Your task to perform on an android device: Do I have any events this weekend? Image 0: 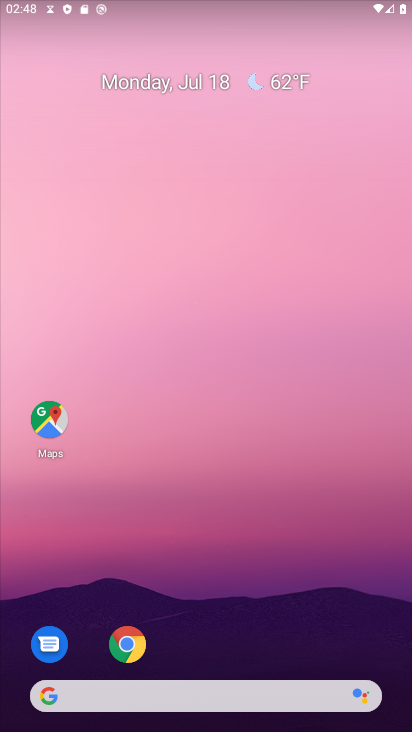
Step 0: drag from (195, 570) to (143, 281)
Your task to perform on an android device: Do I have any events this weekend? Image 1: 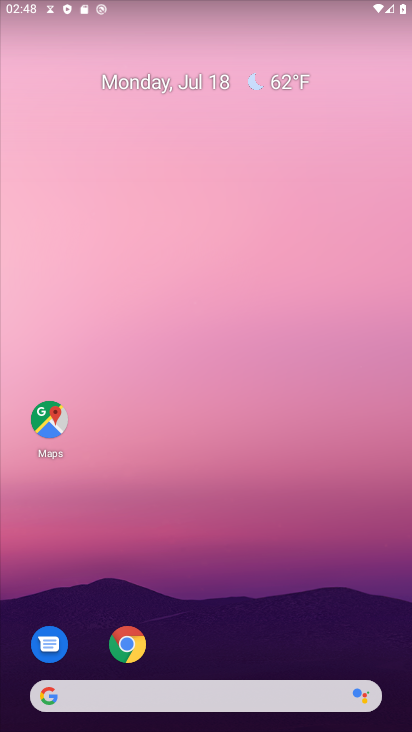
Step 1: drag from (194, 640) to (126, 346)
Your task to perform on an android device: Do I have any events this weekend? Image 2: 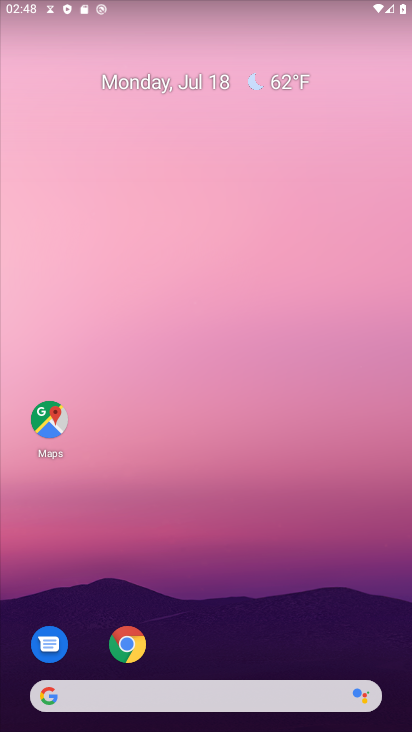
Step 2: drag from (210, 566) to (168, 262)
Your task to perform on an android device: Do I have any events this weekend? Image 3: 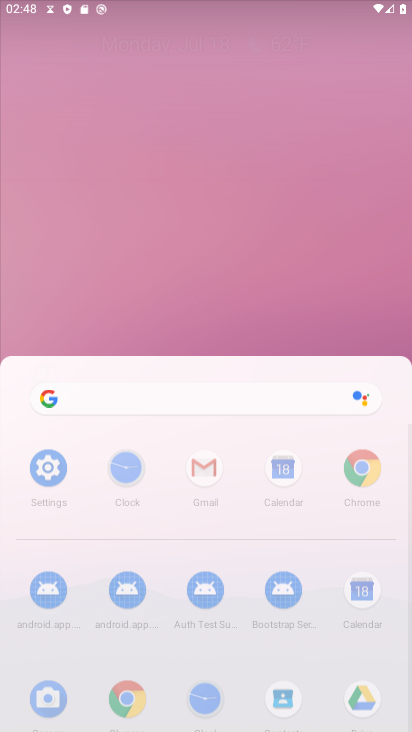
Step 3: drag from (254, 585) to (274, 283)
Your task to perform on an android device: Do I have any events this weekend? Image 4: 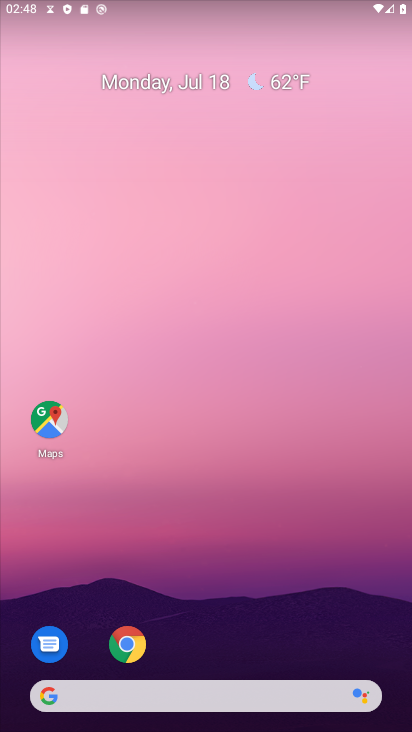
Step 4: drag from (248, 524) to (233, 177)
Your task to perform on an android device: Do I have any events this weekend? Image 5: 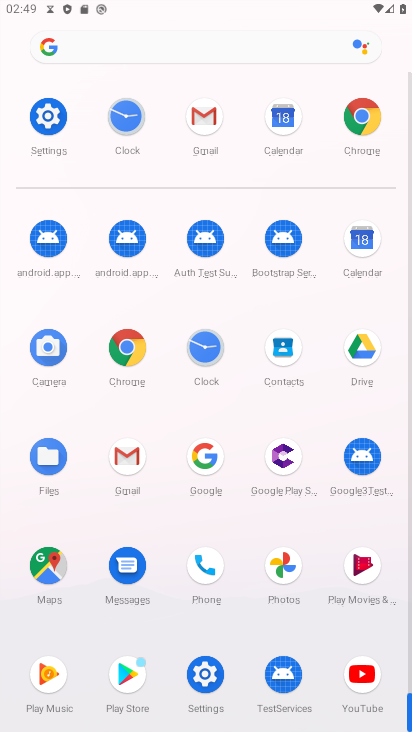
Step 5: click (363, 235)
Your task to perform on an android device: Do I have any events this weekend? Image 6: 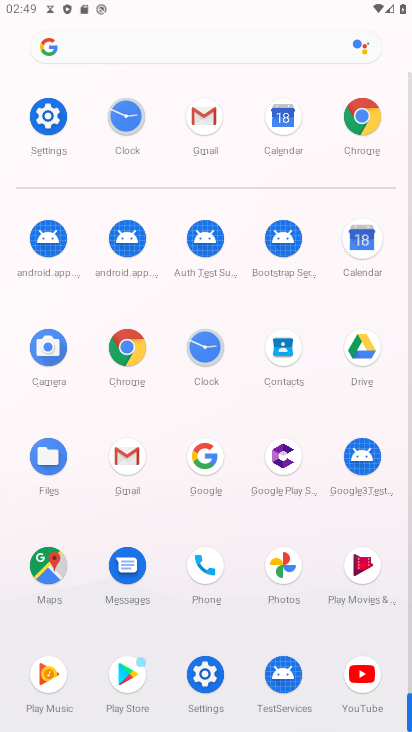
Step 6: click (360, 236)
Your task to perform on an android device: Do I have any events this weekend? Image 7: 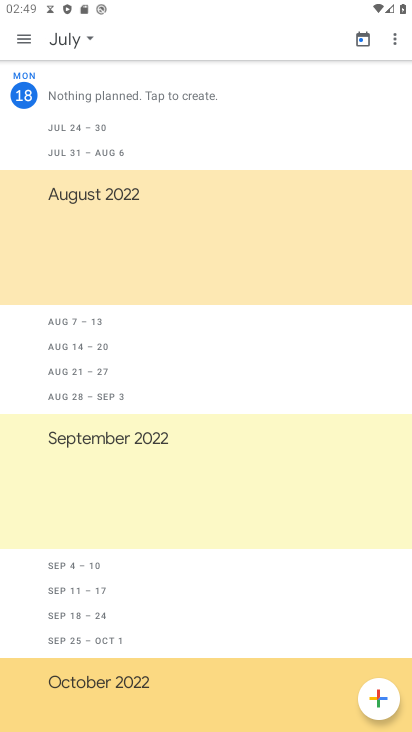
Step 7: click (83, 43)
Your task to perform on an android device: Do I have any events this weekend? Image 8: 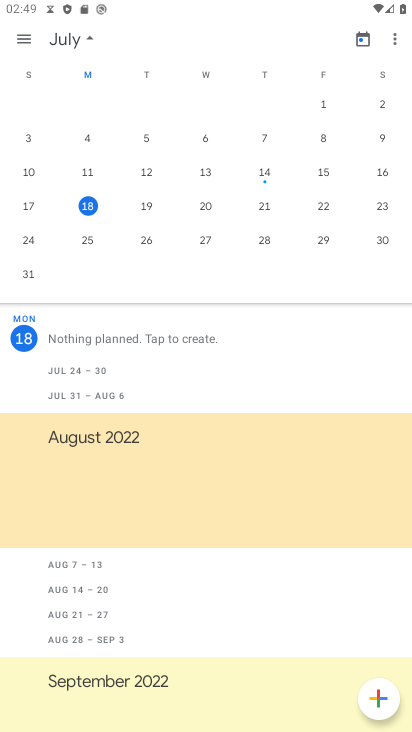
Step 8: drag from (293, 224) to (59, 237)
Your task to perform on an android device: Do I have any events this weekend? Image 9: 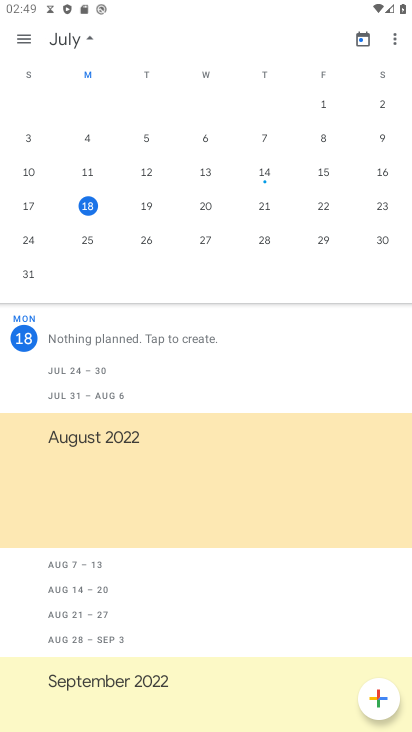
Step 9: drag from (264, 213) to (14, 134)
Your task to perform on an android device: Do I have any events this weekend? Image 10: 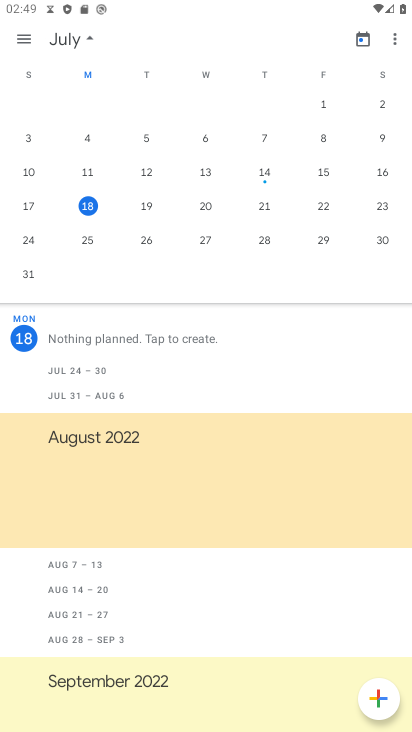
Step 10: click (375, 205)
Your task to perform on an android device: Do I have any events this weekend? Image 11: 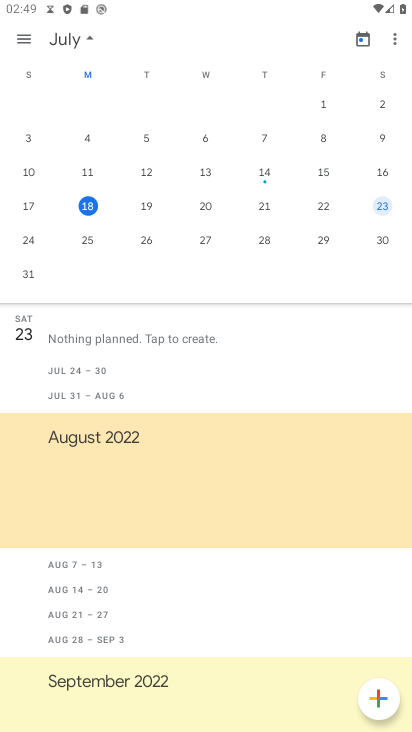
Step 11: click (380, 202)
Your task to perform on an android device: Do I have any events this weekend? Image 12: 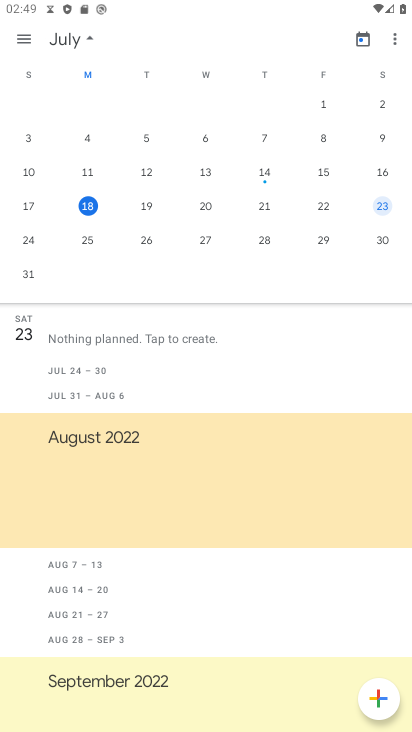
Step 12: click (380, 202)
Your task to perform on an android device: Do I have any events this weekend? Image 13: 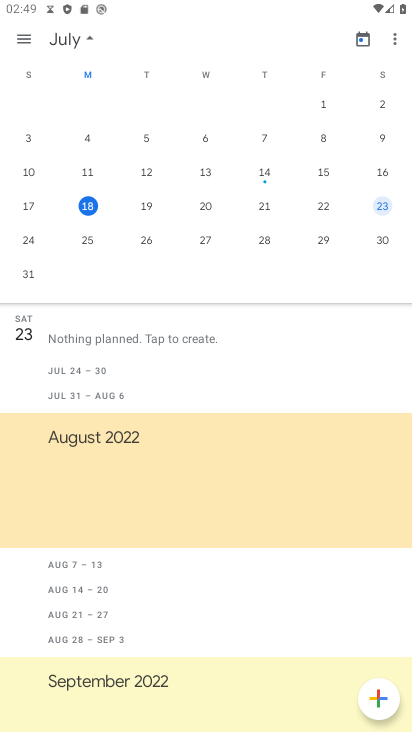
Step 13: click (380, 202)
Your task to perform on an android device: Do I have any events this weekend? Image 14: 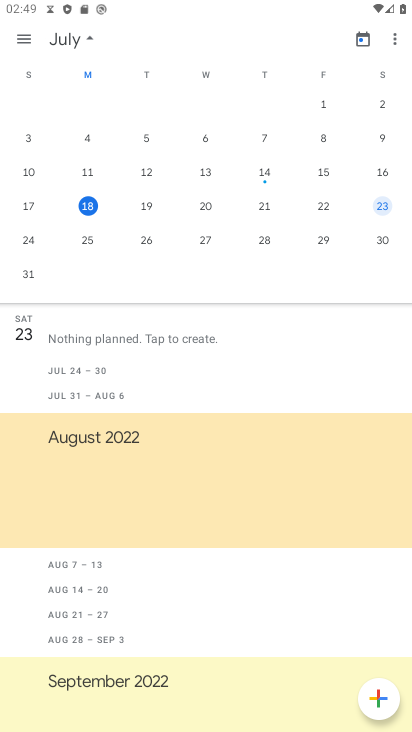
Step 14: task complete